Your task to perform on an android device: open a new tab in the chrome app Image 0: 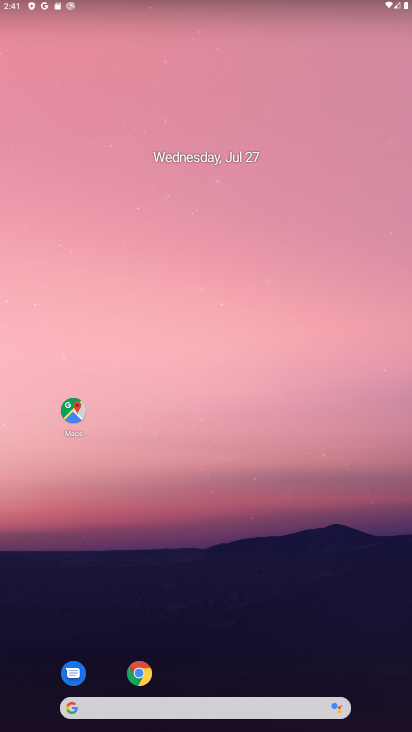
Step 0: click (138, 675)
Your task to perform on an android device: open a new tab in the chrome app Image 1: 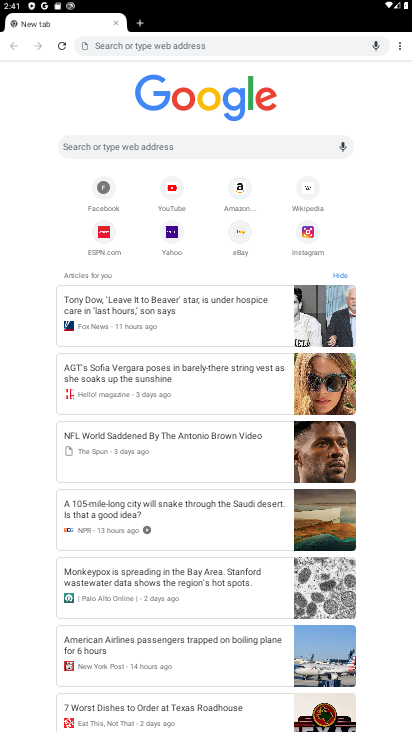
Step 1: click (398, 44)
Your task to perform on an android device: open a new tab in the chrome app Image 2: 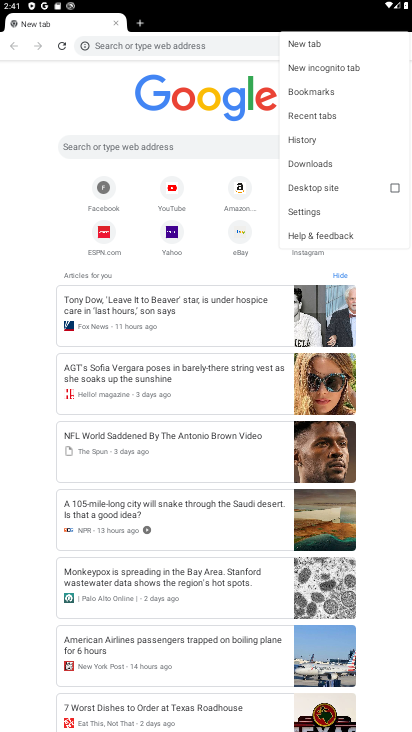
Step 2: click (321, 48)
Your task to perform on an android device: open a new tab in the chrome app Image 3: 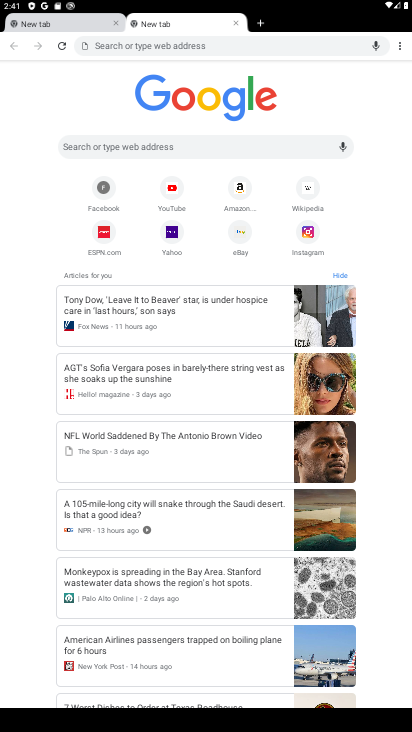
Step 3: task complete